Your task to perform on an android device: Go to calendar. Show me events next week Image 0: 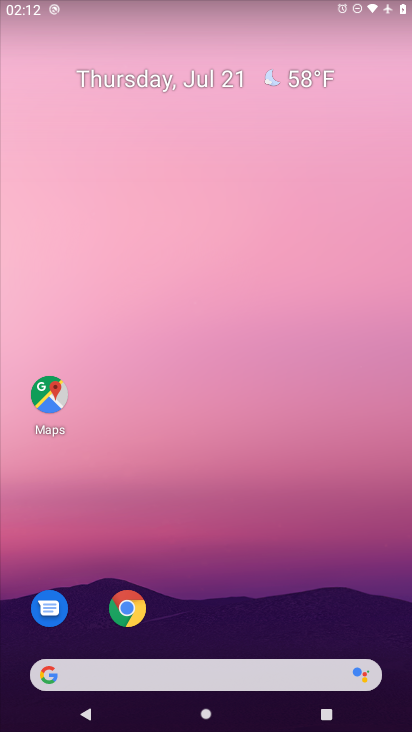
Step 0: press home button
Your task to perform on an android device: Go to calendar. Show me events next week Image 1: 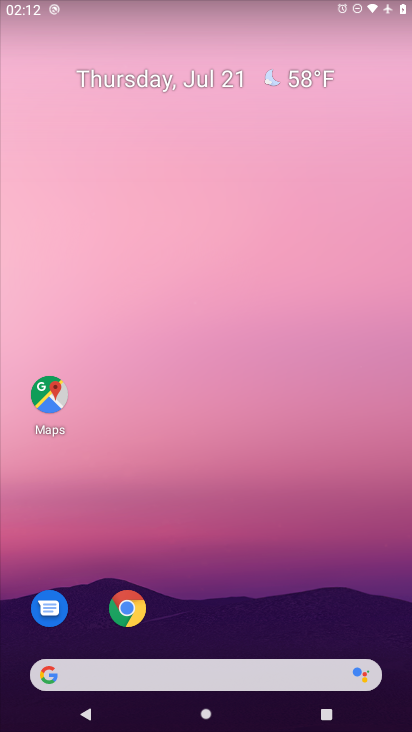
Step 1: drag from (252, 624) to (366, 86)
Your task to perform on an android device: Go to calendar. Show me events next week Image 2: 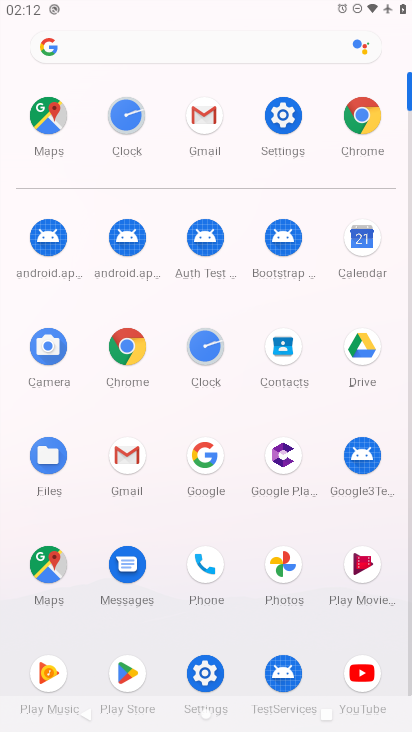
Step 2: click (357, 238)
Your task to perform on an android device: Go to calendar. Show me events next week Image 3: 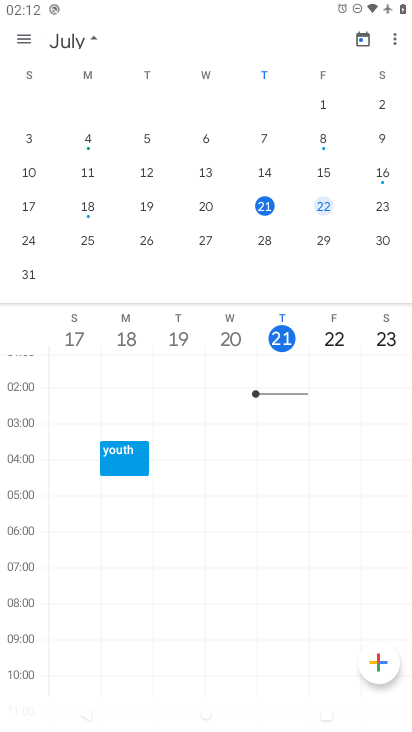
Step 3: click (27, 40)
Your task to perform on an android device: Go to calendar. Show me events next week Image 4: 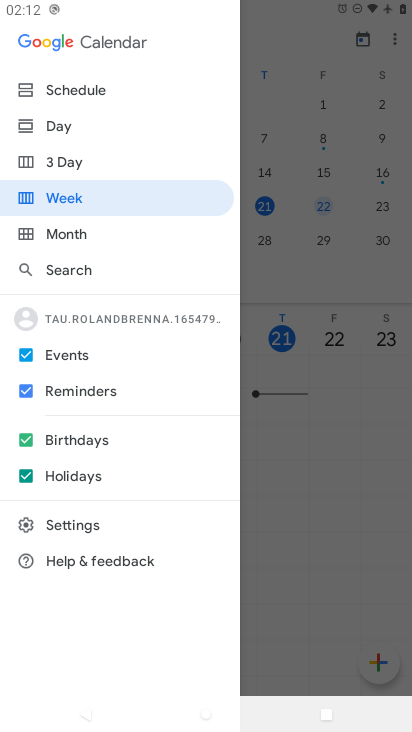
Step 4: click (69, 205)
Your task to perform on an android device: Go to calendar. Show me events next week Image 5: 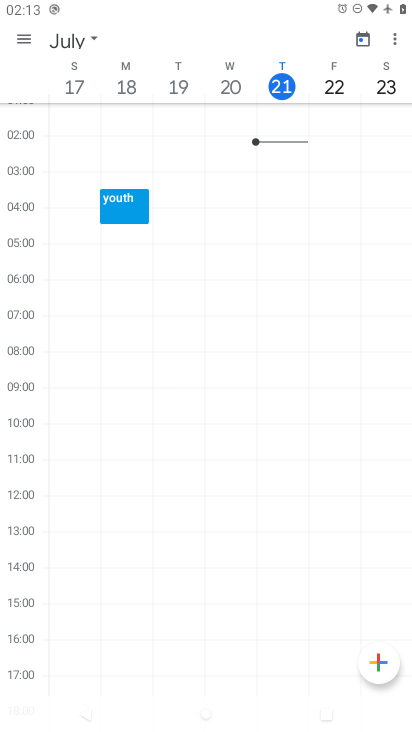
Step 5: task complete